Your task to perform on an android device: What's on my calendar today? Image 0: 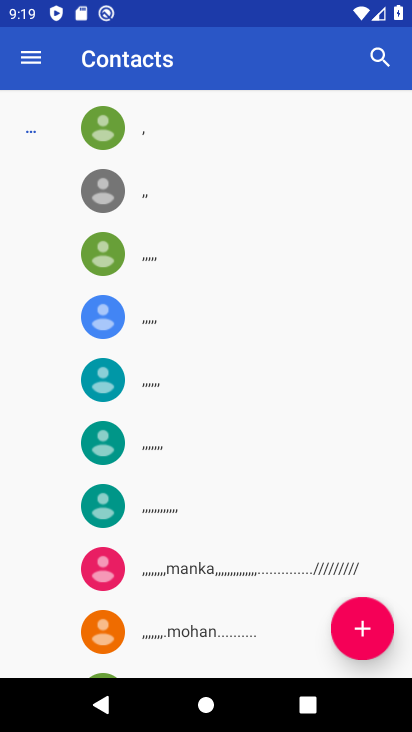
Step 0: press home button
Your task to perform on an android device: What's on my calendar today? Image 1: 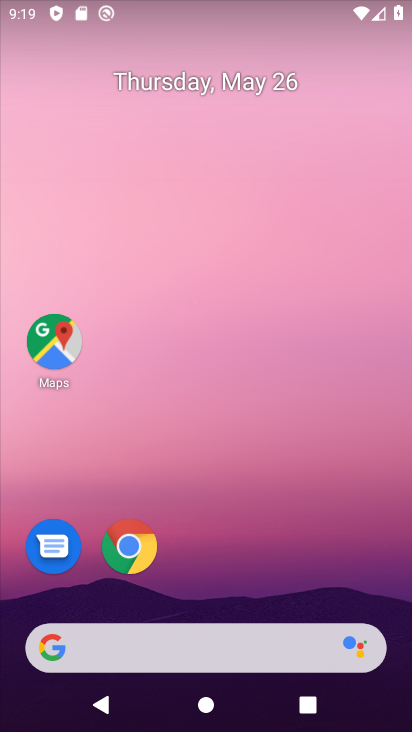
Step 1: drag from (365, 561) to (368, 216)
Your task to perform on an android device: What's on my calendar today? Image 2: 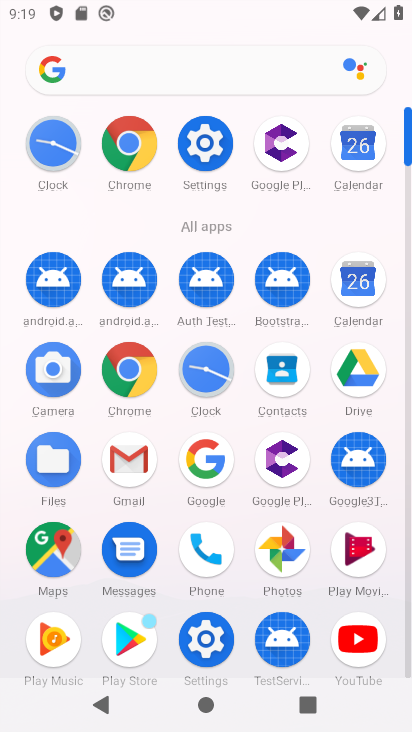
Step 2: click (369, 297)
Your task to perform on an android device: What's on my calendar today? Image 3: 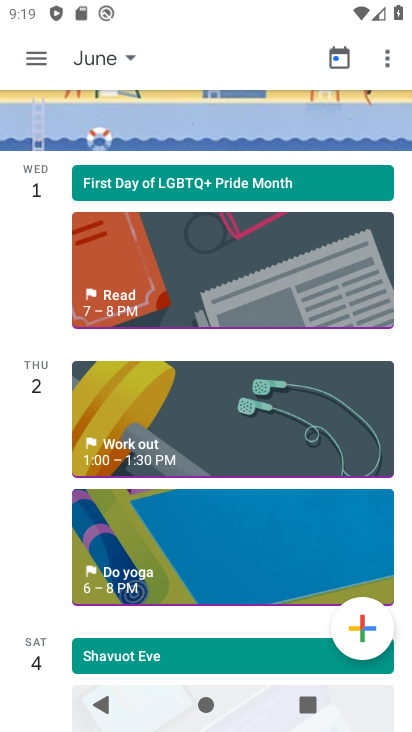
Step 3: click (100, 69)
Your task to perform on an android device: What's on my calendar today? Image 4: 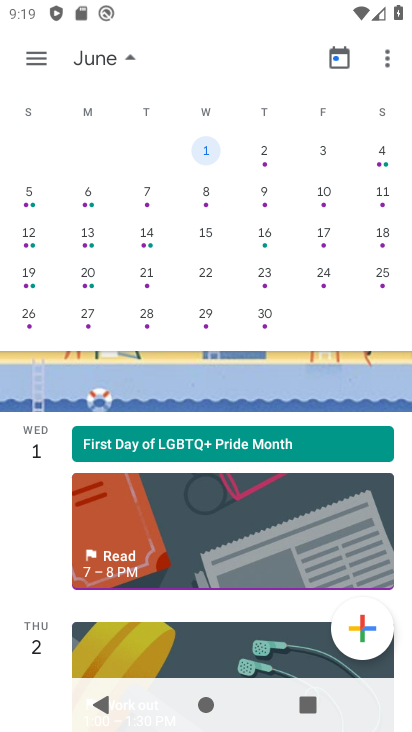
Step 4: task complete